Your task to perform on an android device: create a new album in the google photos Image 0: 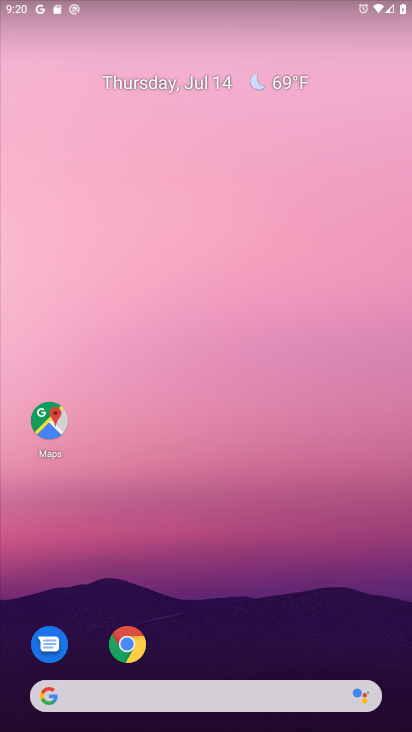
Step 0: drag from (188, 662) to (284, 51)
Your task to perform on an android device: create a new album in the google photos Image 1: 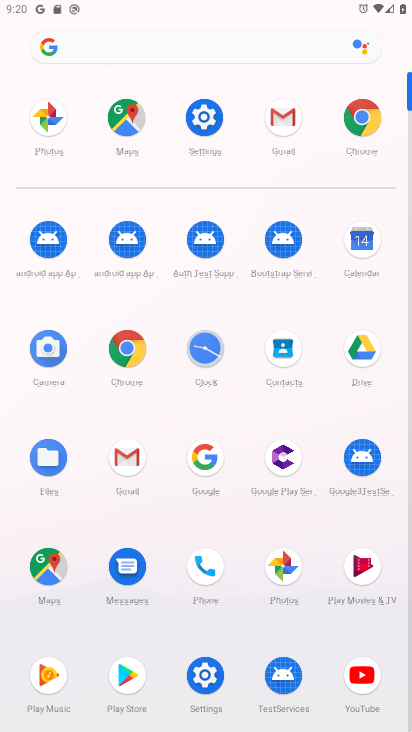
Step 1: click (46, 108)
Your task to perform on an android device: create a new album in the google photos Image 2: 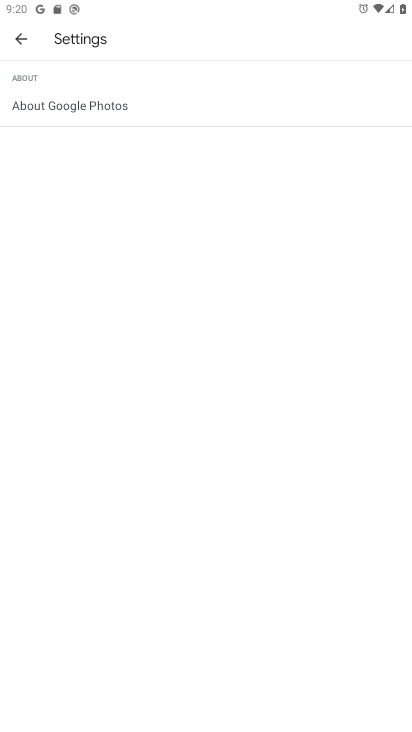
Step 2: click (38, 40)
Your task to perform on an android device: create a new album in the google photos Image 3: 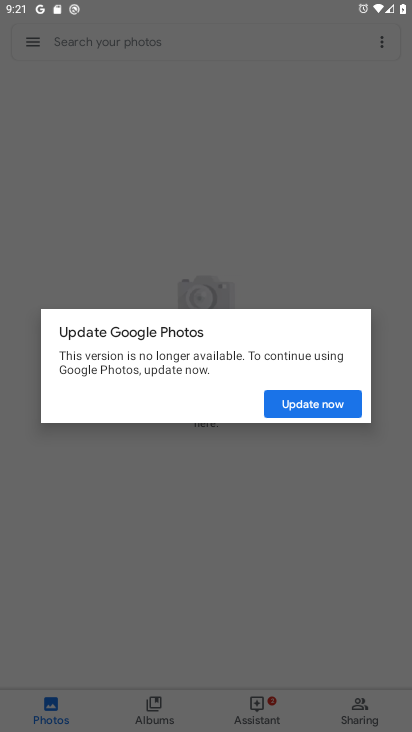
Step 3: click (284, 396)
Your task to perform on an android device: create a new album in the google photos Image 4: 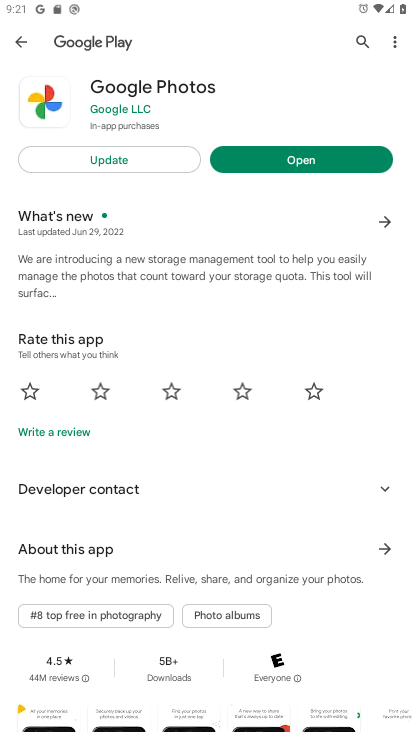
Step 4: click (305, 161)
Your task to perform on an android device: create a new album in the google photos Image 5: 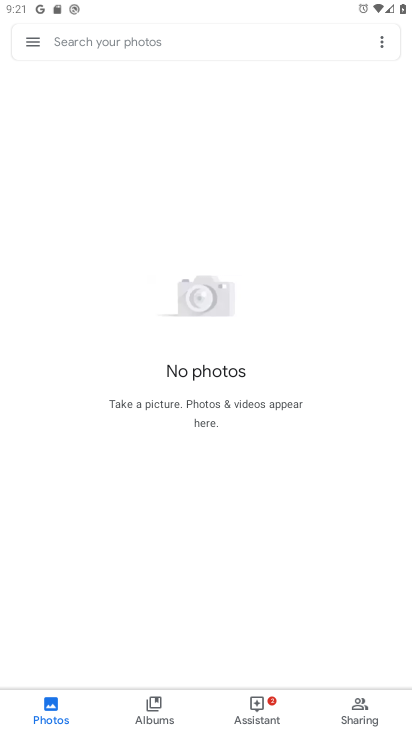
Step 5: task complete